Your task to perform on an android device: toggle wifi Image 0: 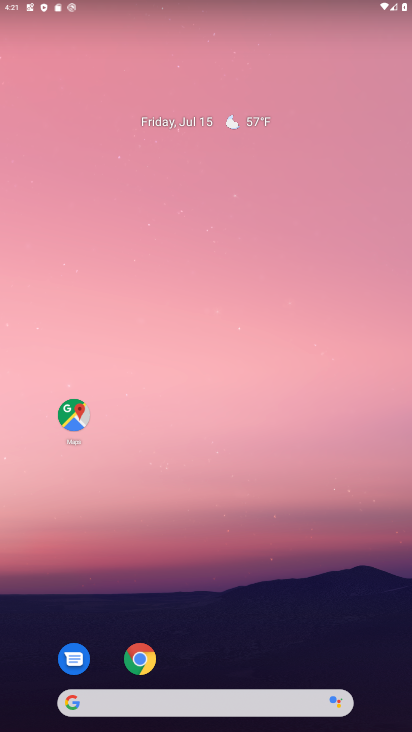
Step 0: drag from (330, 652) to (180, 40)
Your task to perform on an android device: toggle wifi Image 1: 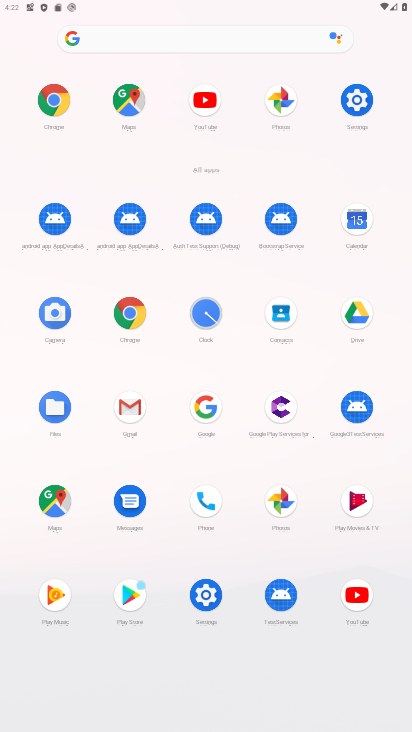
Step 1: click (357, 94)
Your task to perform on an android device: toggle wifi Image 2: 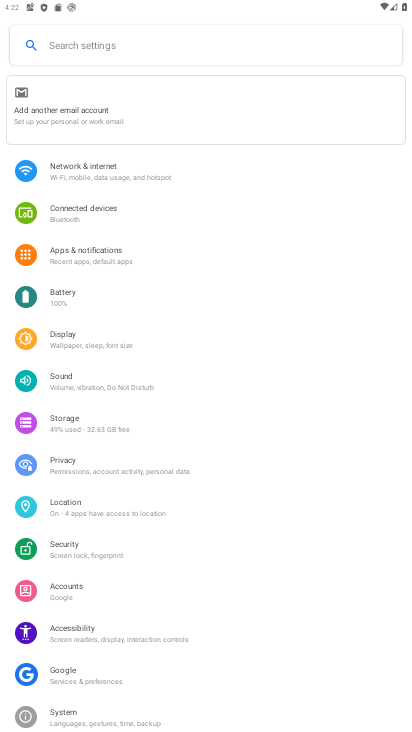
Step 2: click (224, 182)
Your task to perform on an android device: toggle wifi Image 3: 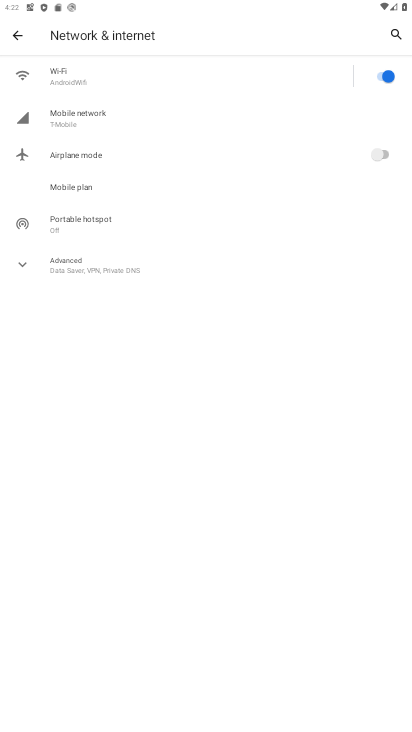
Step 3: click (369, 74)
Your task to perform on an android device: toggle wifi Image 4: 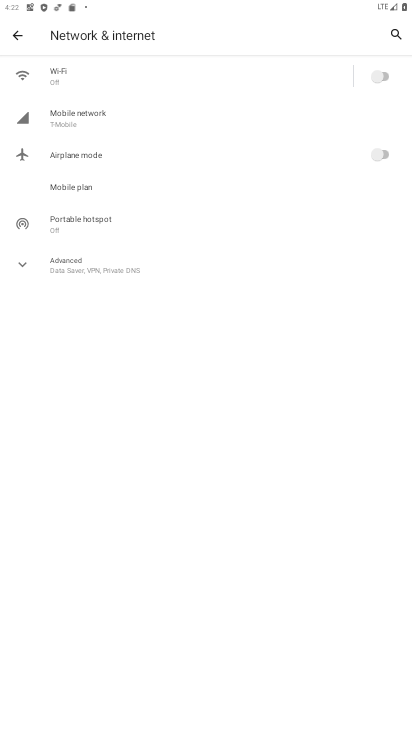
Step 4: task complete